Your task to perform on an android device: Open calendar and show me the second week of next month Image 0: 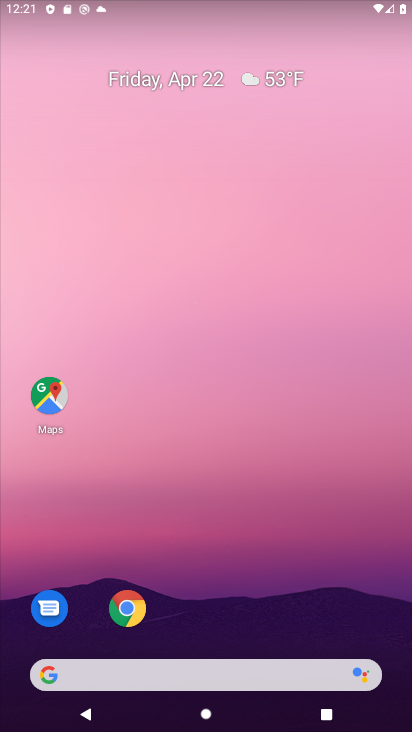
Step 0: drag from (312, 584) to (307, 123)
Your task to perform on an android device: Open calendar and show me the second week of next month Image 1: 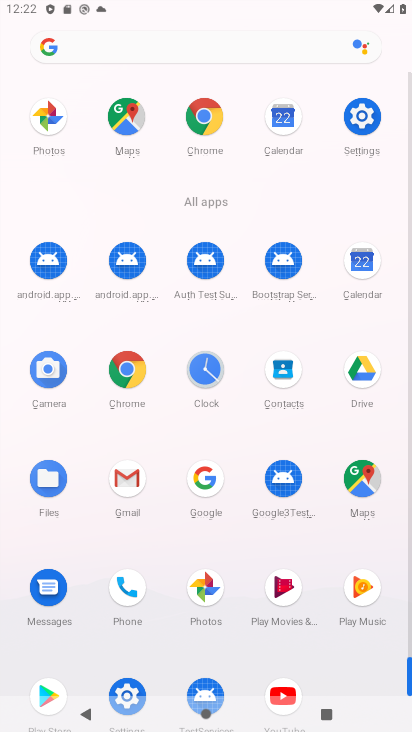
Step 1: click (363, 275)
Your task to perform on an android device: Open calendar and show me the second week of next month Image 2: 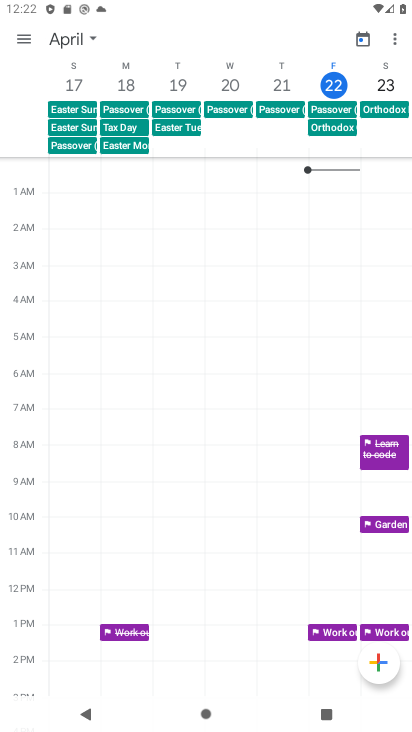
Step 2: click (73, 40)
Your task to perform on an android device: Open calendar and show me the second week of next month Image 3: 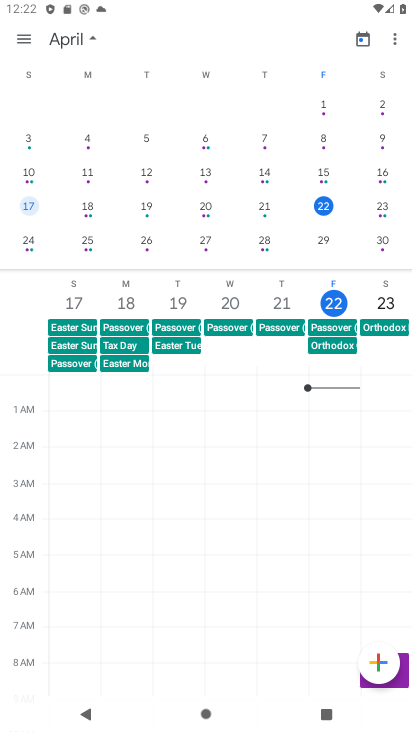
Step 3: drag from (385, 203) to (8, 152)
Your task to perform on an android device: Open calendar and show me the second week of next month Image 4: 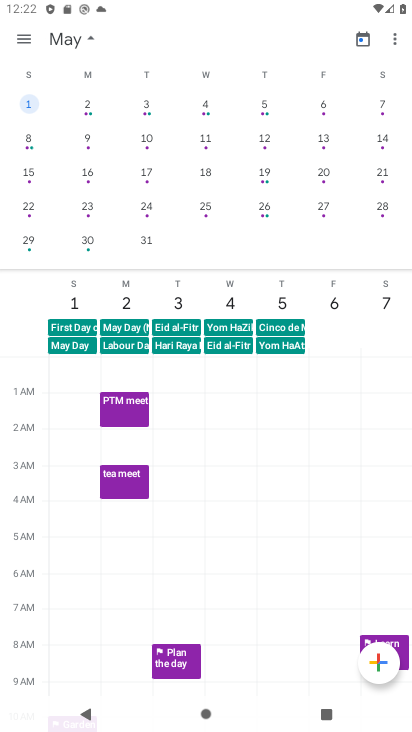
Step 4: click (145, 136)
Your task to perform on an android device: Open calendar and show me the second week of next month Image 5: 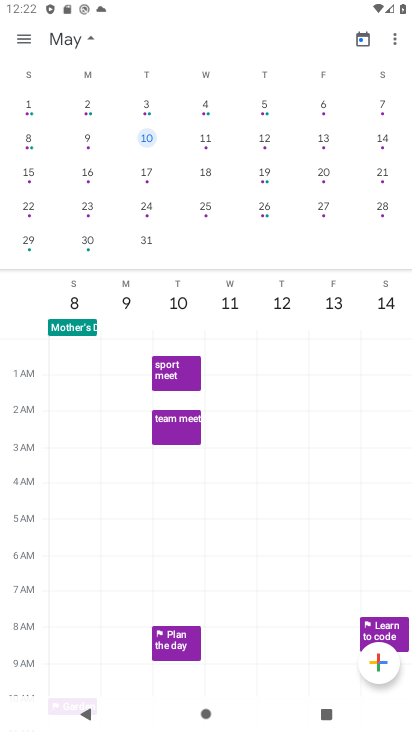
Step 5: task complete